Your task to perform on an android device: Open Google Image 0: 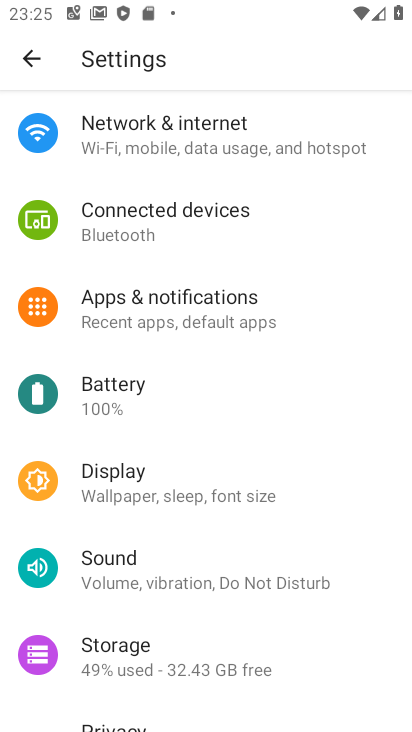
Step 0: press home button
Your task to perform on an android device: Open Google Image 1: 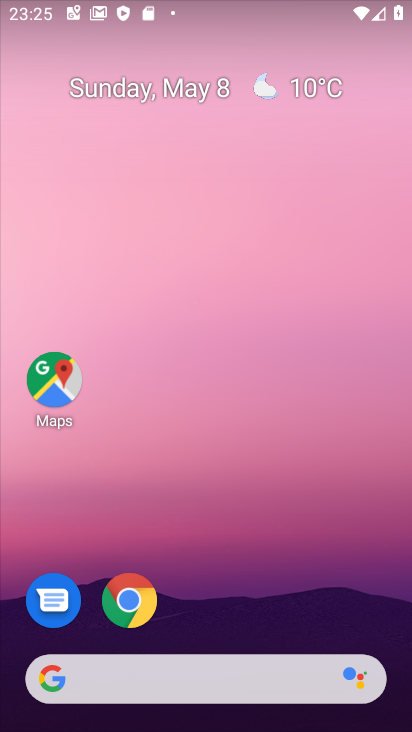
Step 1: click (105, 671)
Your task to perform on an android device: Open Google Image 2: 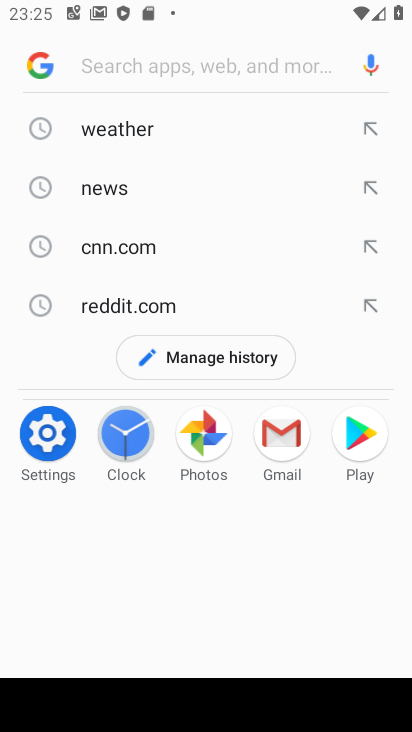
Step 2: click (53, 77)
Your task to perform on an android device: Open Google Image 3: 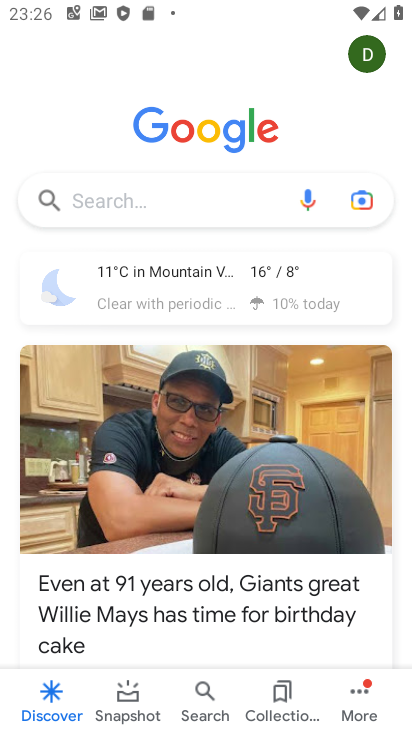
Step 3: task complete